Your task to perform on an android device: What's the price of the EGO 14-in 56-Volt Brushless Cordless Chainsaw? Image 0: 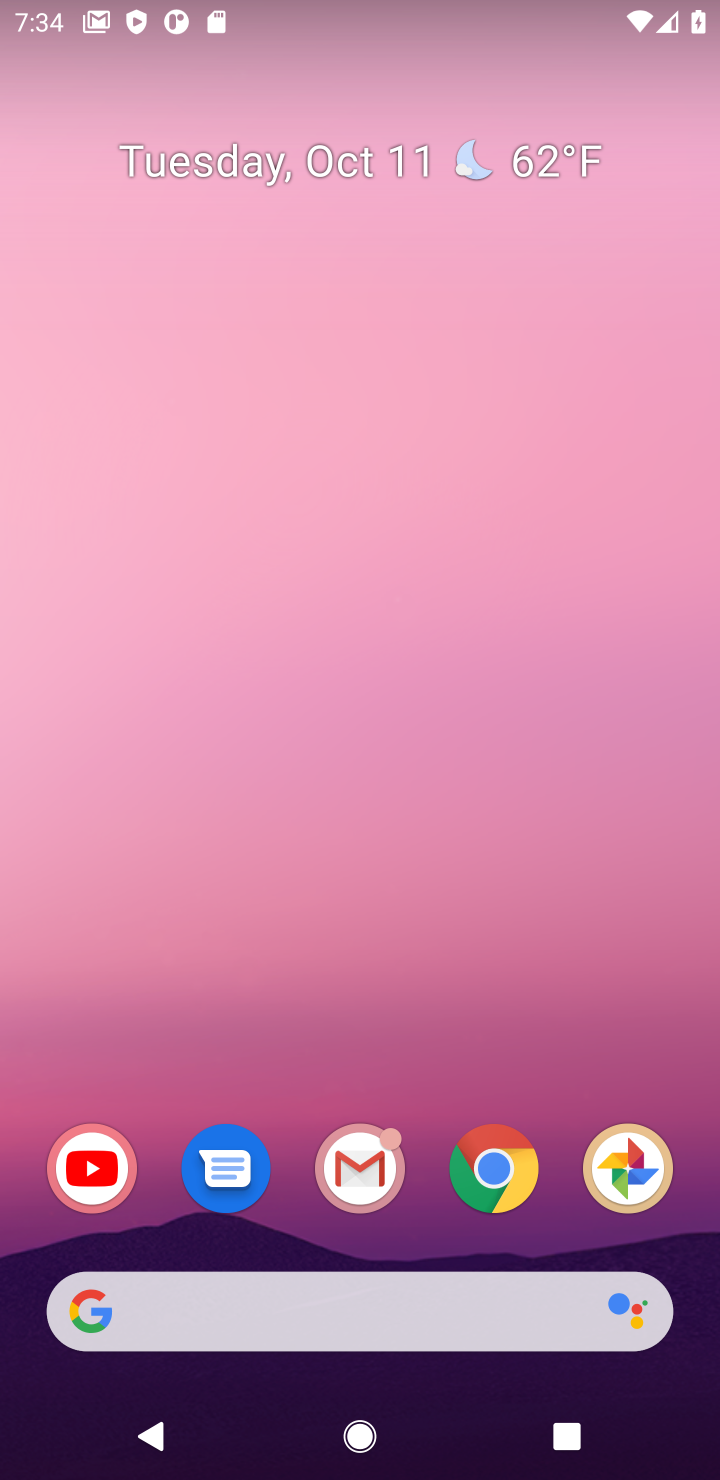
Step 0: click (506, 1174)
Your task to perform on an android device: What's the price of the EGO 14-in 56-Volt Brushless Cordless Chainsaw? Image 1: 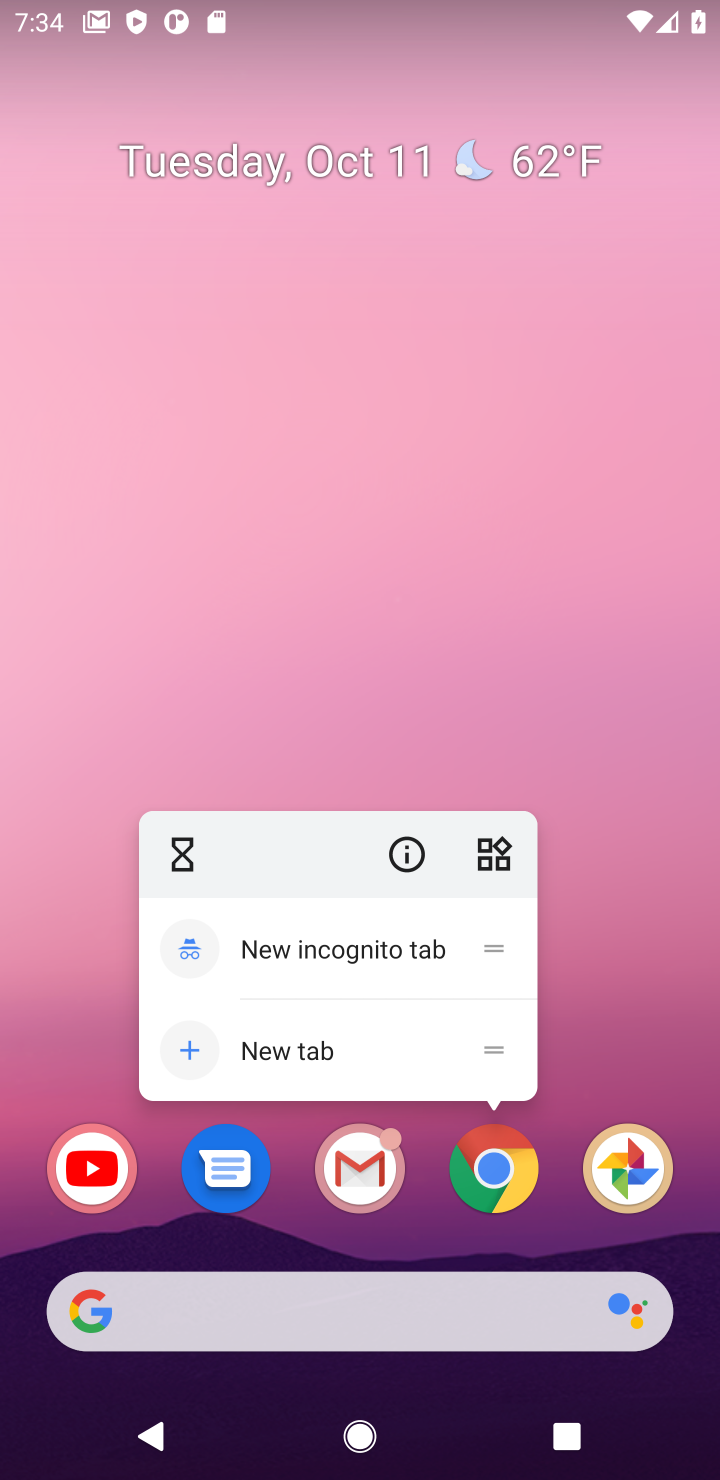
Step 1: click (506, 1174)
Your task to perform on an android device: What's the price of the EGO 14-in 56-Volt Brushless Cordless Chainsaw? Image 2: 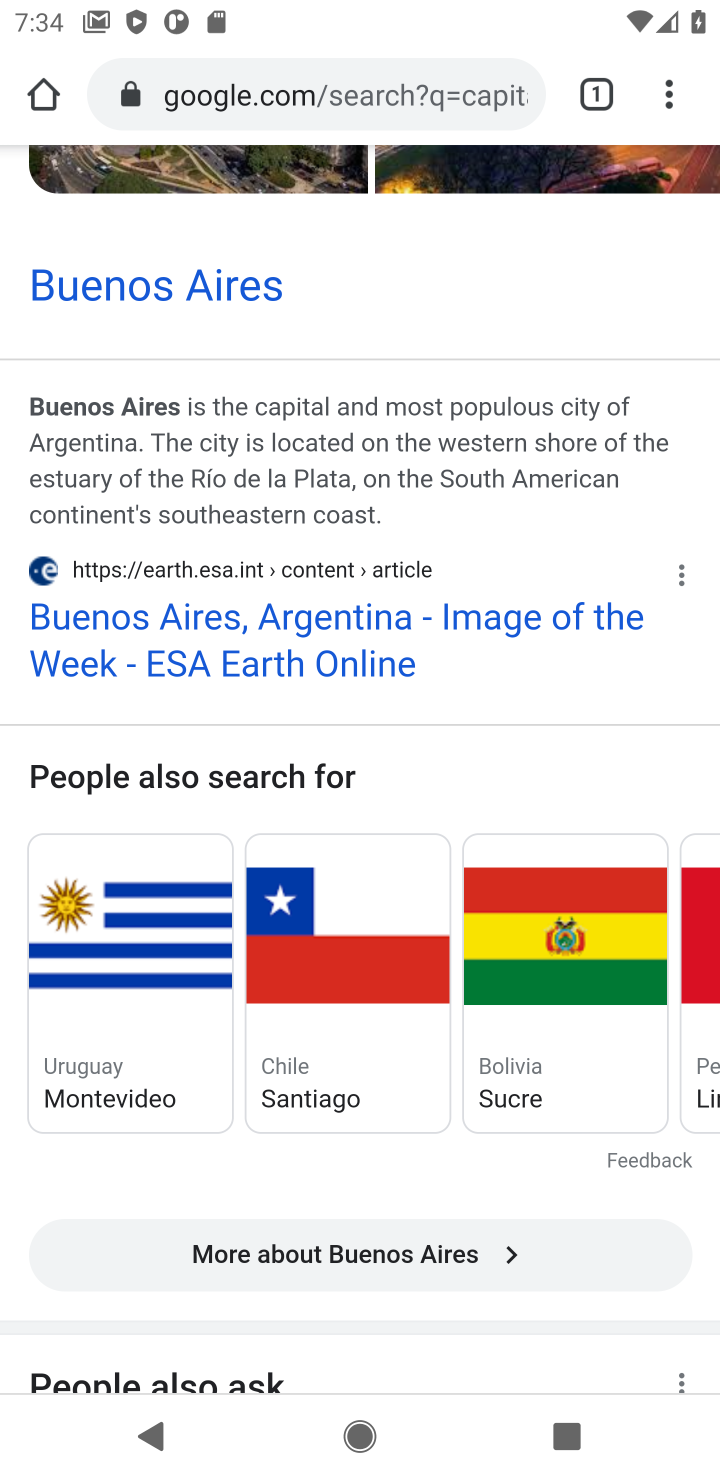
Step 2: click (238, 105)
Your task to perform on an android device: What's the price of the EGO 14-in 56-Volt Brushless Cordless Chainsaw? Image 3: 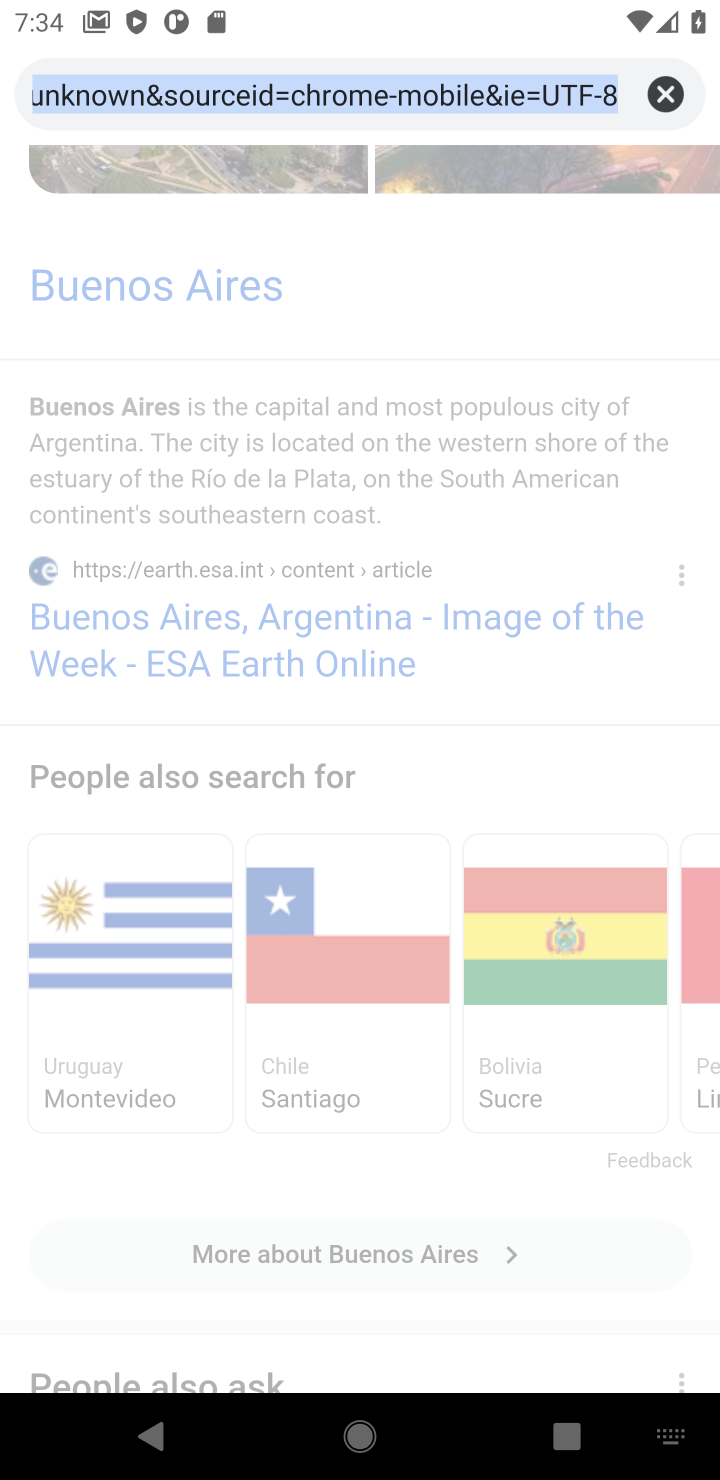
Step 3: click (665, 95)
Your task to perform on an android device: What's the price of the EGO 14-in 56-Volt Brushless Cordless Chainsaw? Image 4: 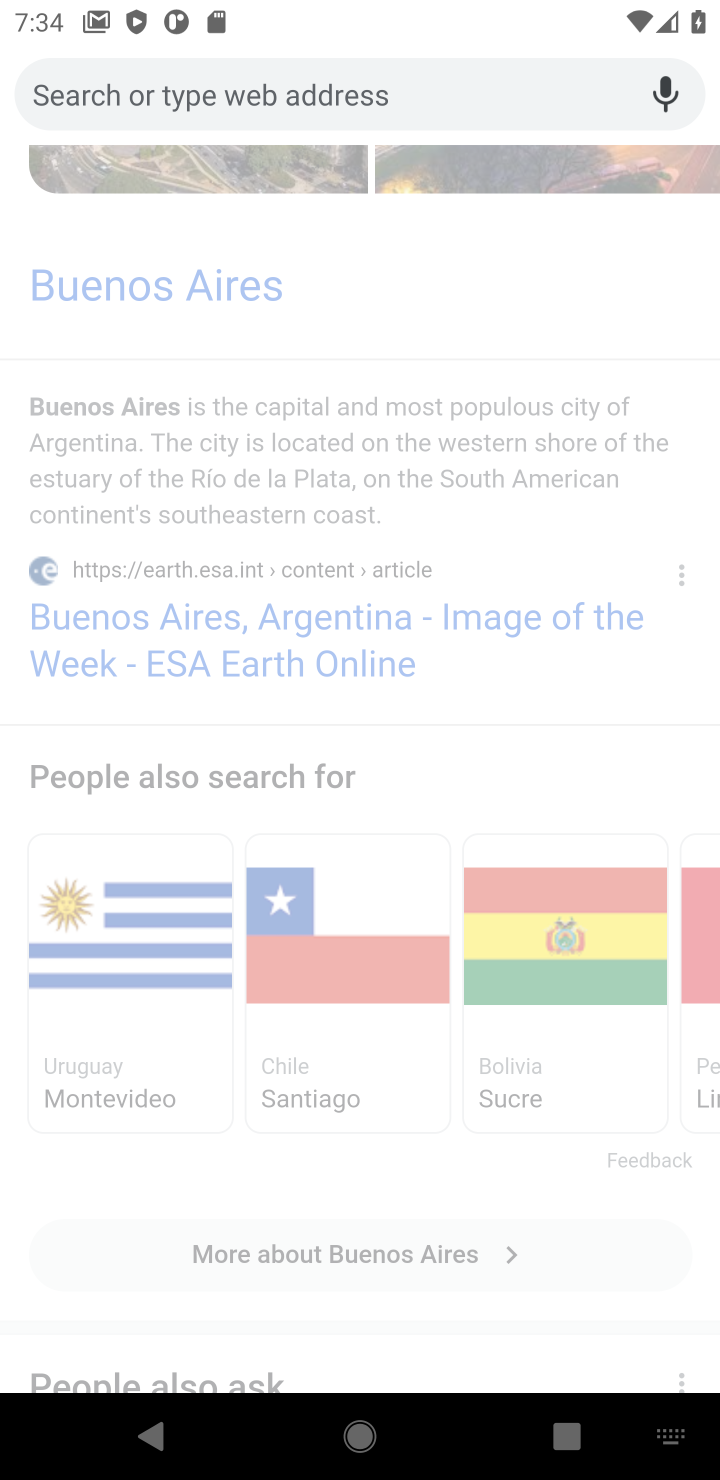
Step 4: type "price of ego 14 in 56 volt brushless cordless chainsaw"
Your task to perform on an android device: What's the price of the EGO 14-in 56-Volt Brushless Cordless Chainsaw? Image 5: 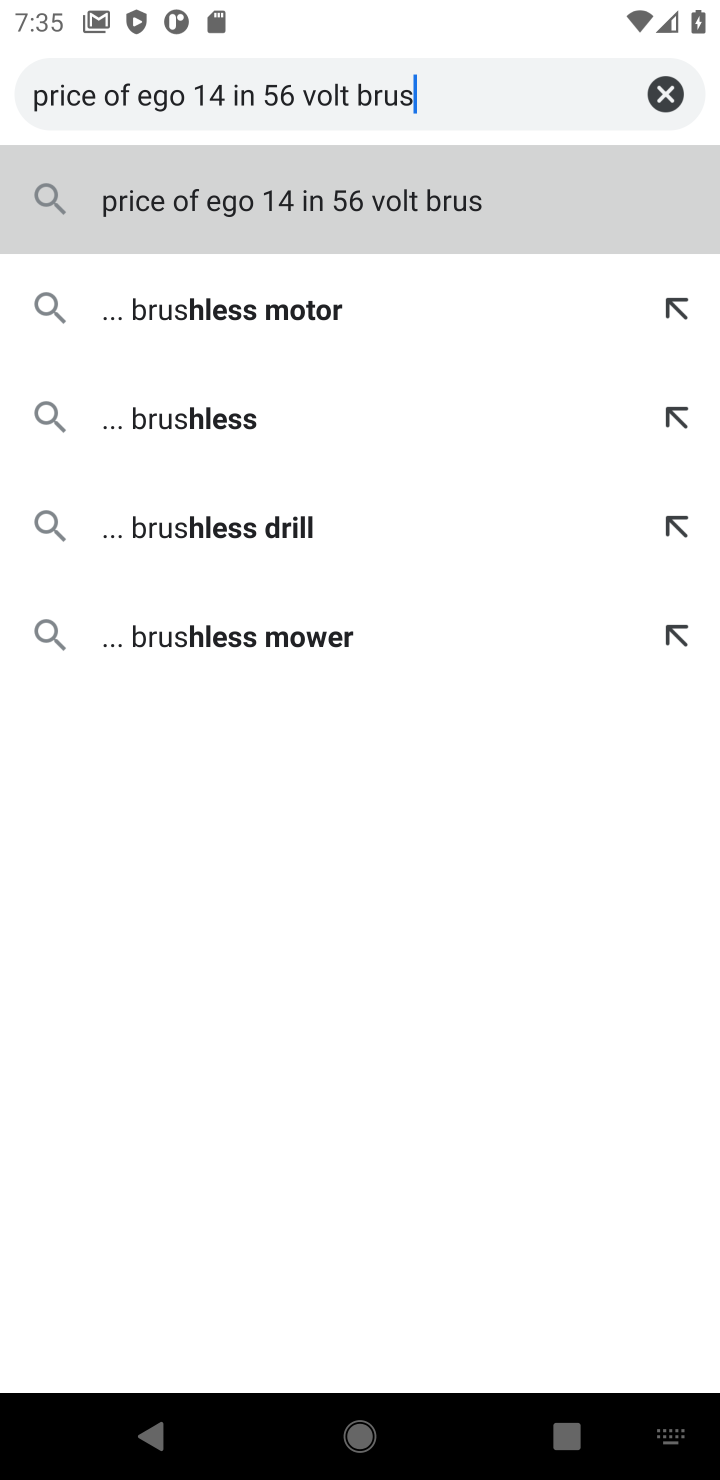
Step 5: click (281, 228)
Your task to perform on an android device: What's the price of the EGO 14-in 56-Volt Brushless Cordless Chainsaw? Image 6: 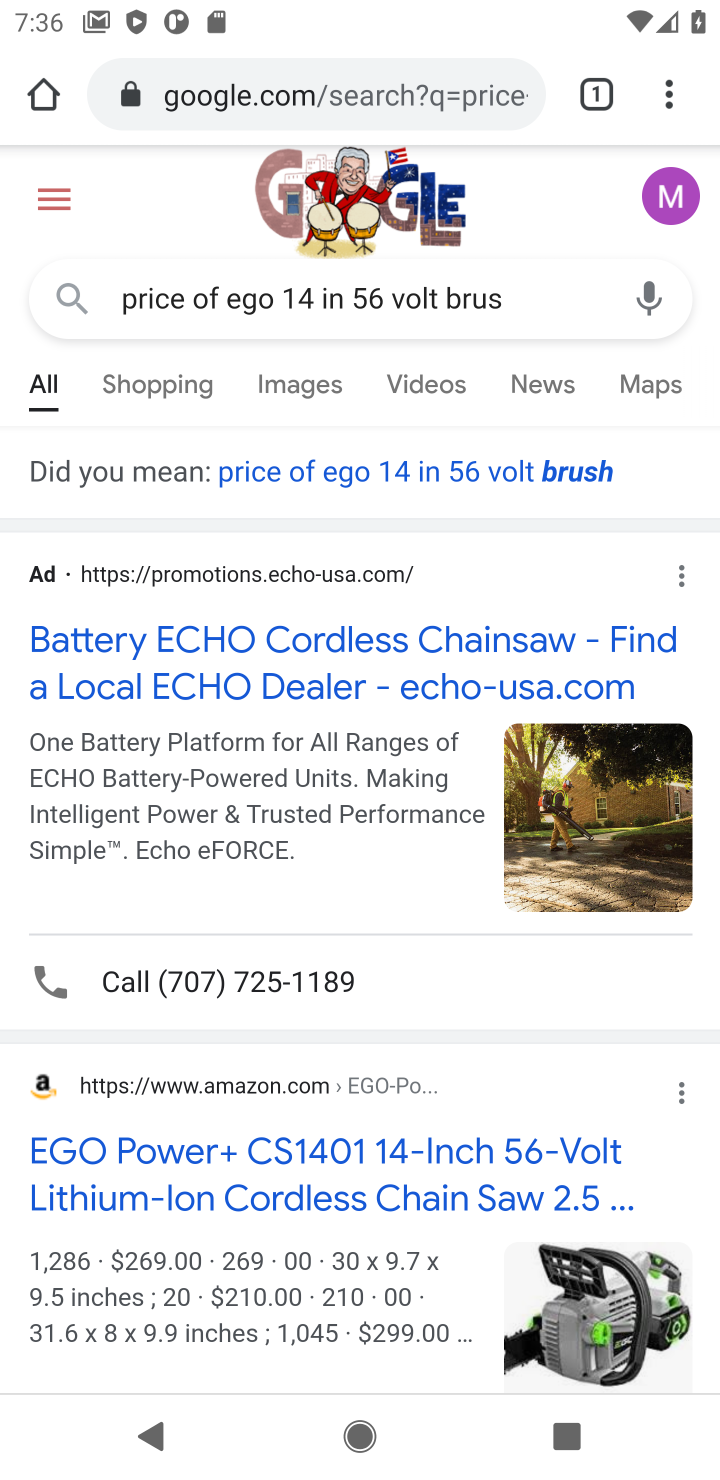
Step 6: click (325, 1146)
Your task to perform on an android device: What's the price of the EGO 14-in 56-Volt Brushless Cordless Chainsaw? Image 7: 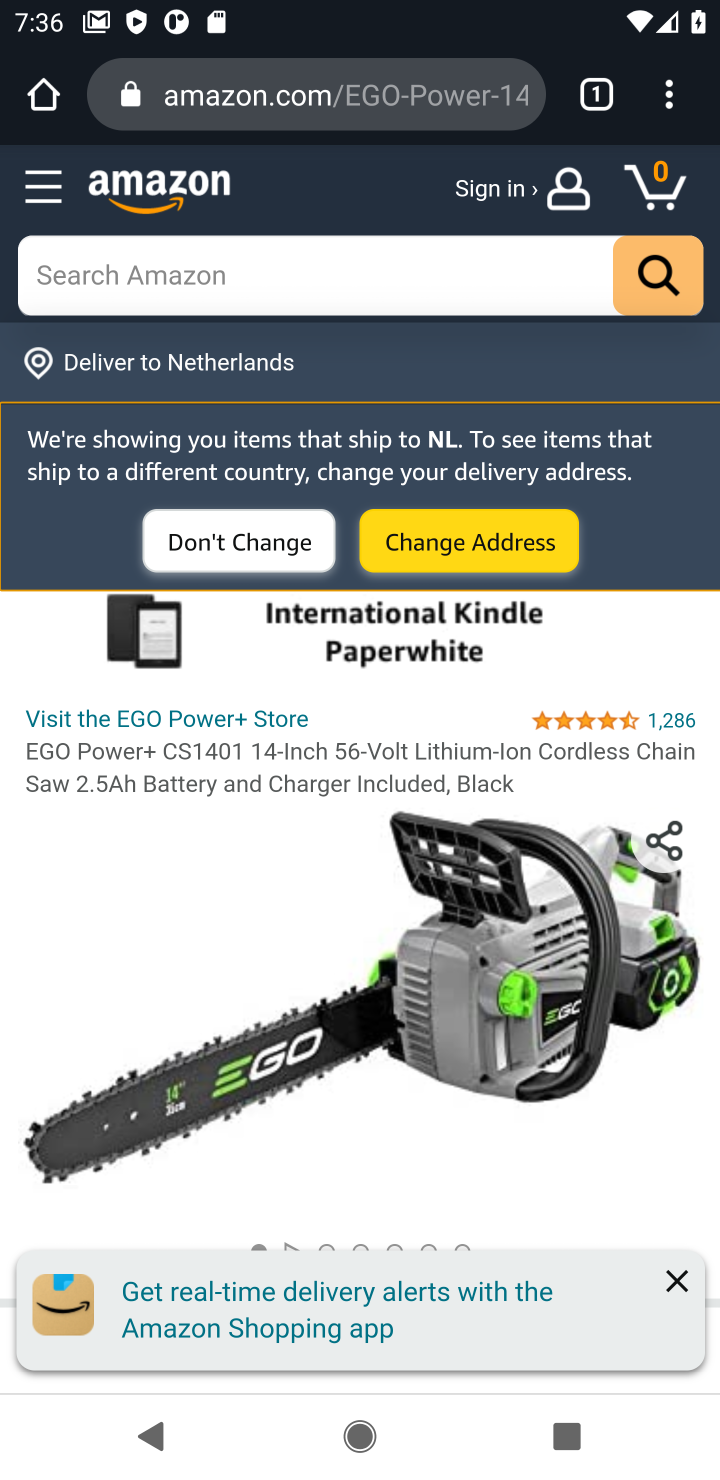
Step 7: click (670, 1286)
Your task to perform on an android device: What's the price of the EGO 14-in 56-Volt Brushless Cordless Chainsaw? Image 8: 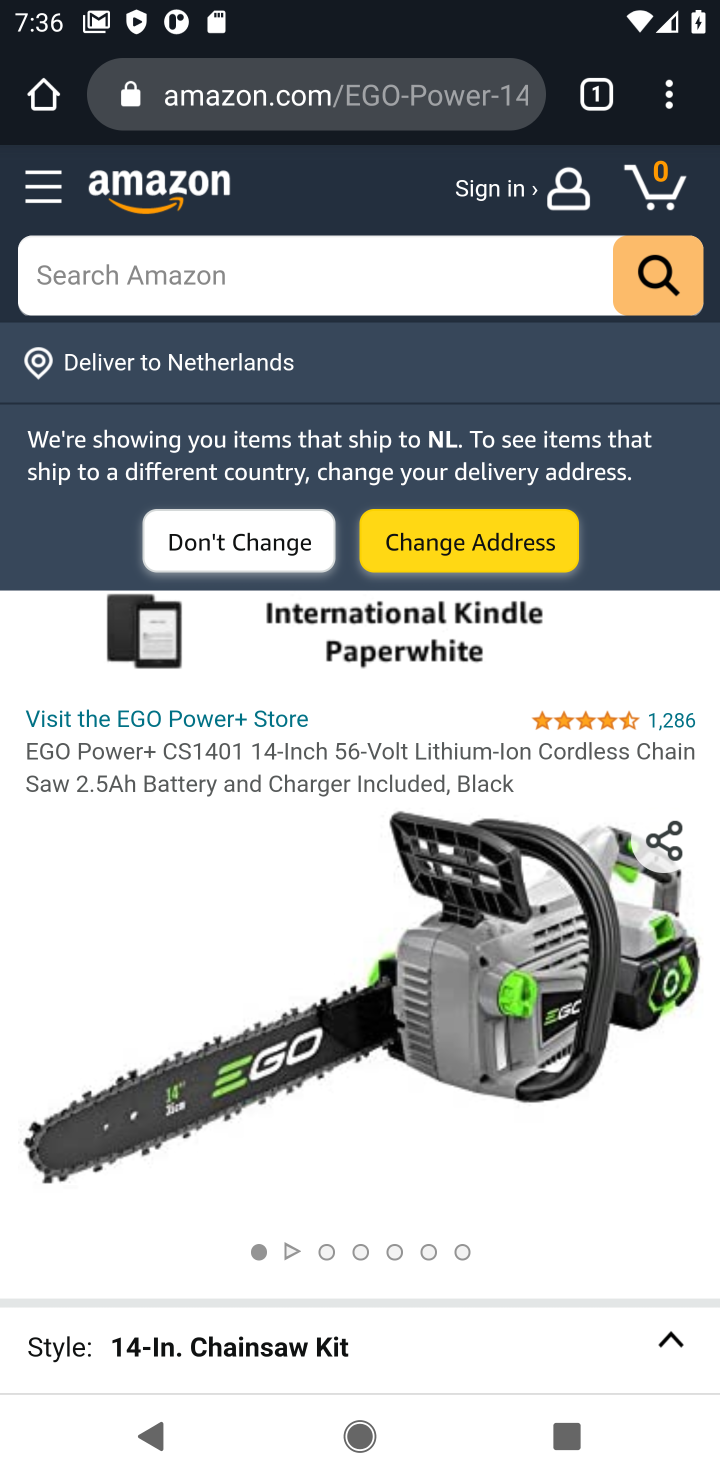
Step 8: drag from (469, 1143) to (521, 840)
Your task to perform on an android device: What's the price of the EGO 14-in 56-Volt Brushless Cordless Chainsaw? Image 9: 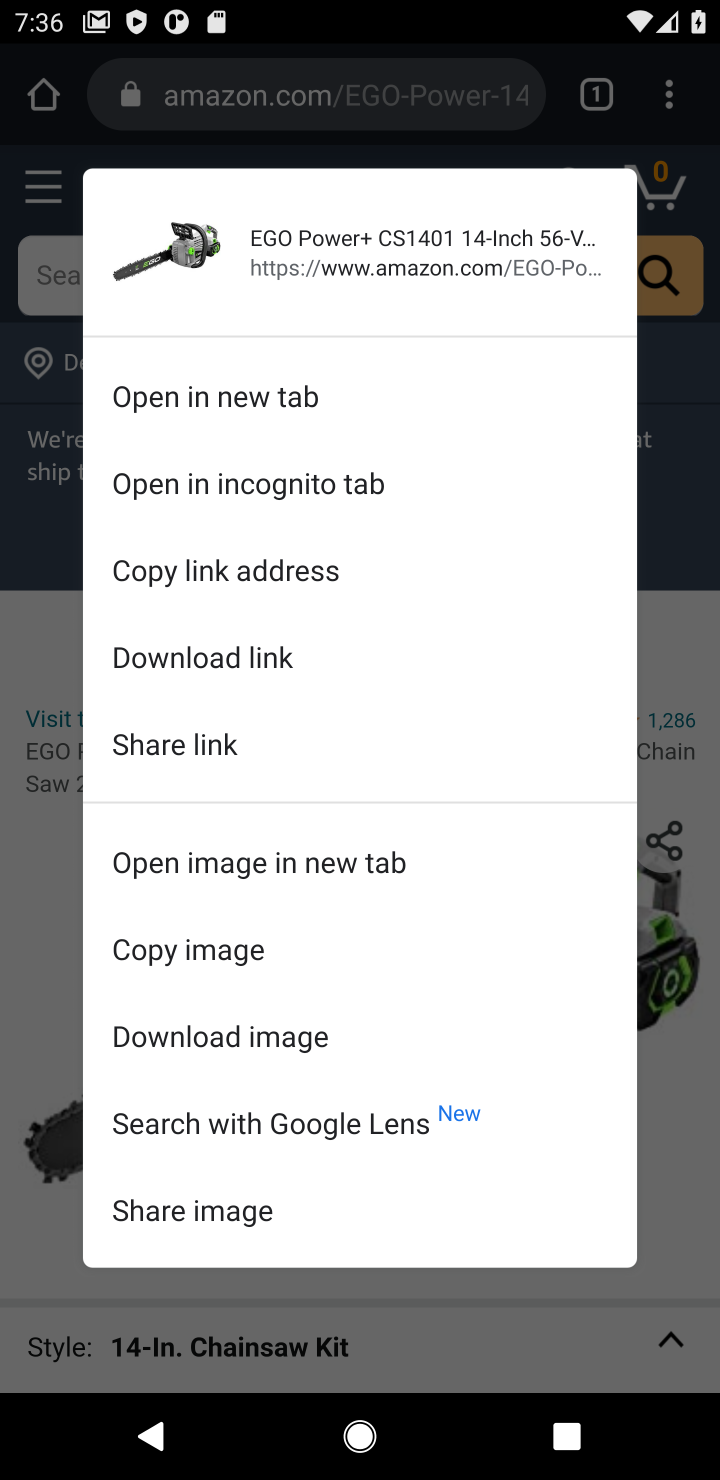
Step 9: click (687, 450)
Your task to perform on an android device: What's the price of the EGO 14-in 56-Volt Brushless Cordless Chainsaw? Image 10: 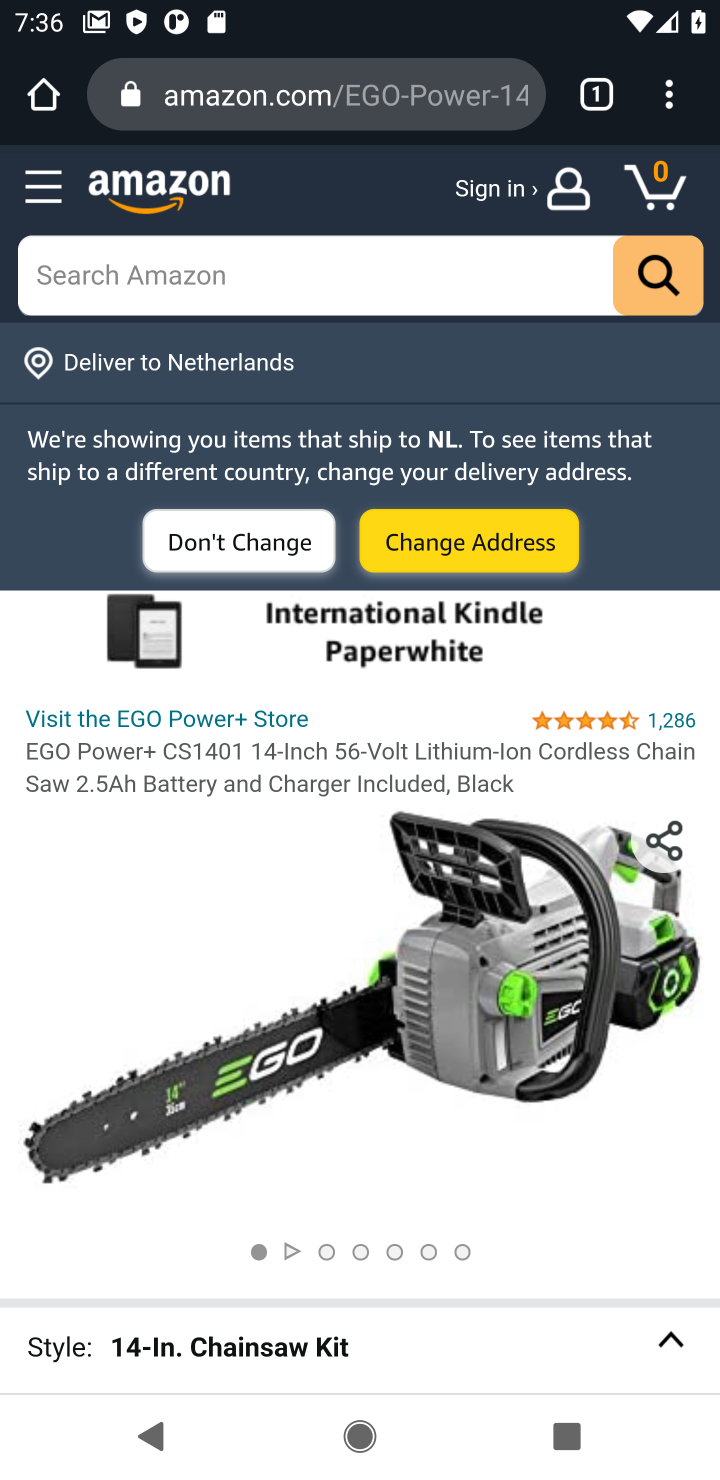
Step 10: task complete